Your task to perform on an android device: add a contact Image 0: 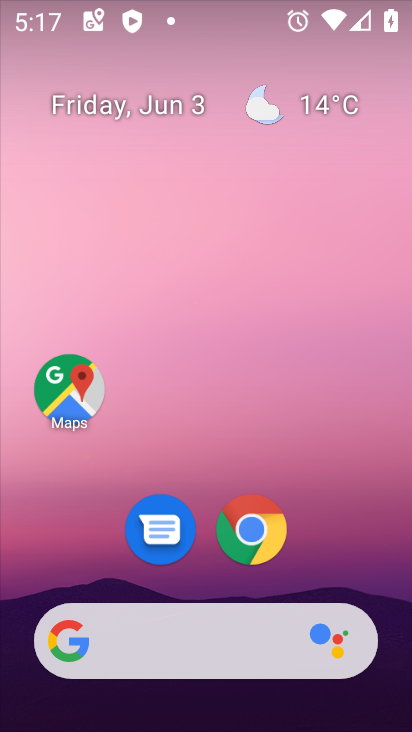
Step 0: press home button
Your task to perform on an android device: add a contact Image 1: 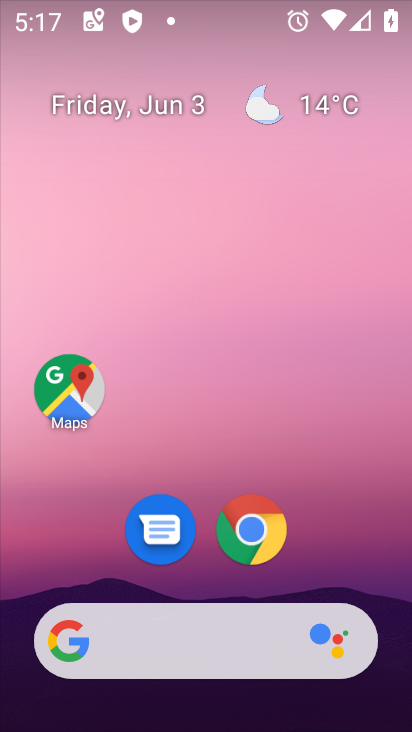
Step 1: drag from (204, 579) to (233, 64)
Your task to perform on an android device: add a contact Image 2: 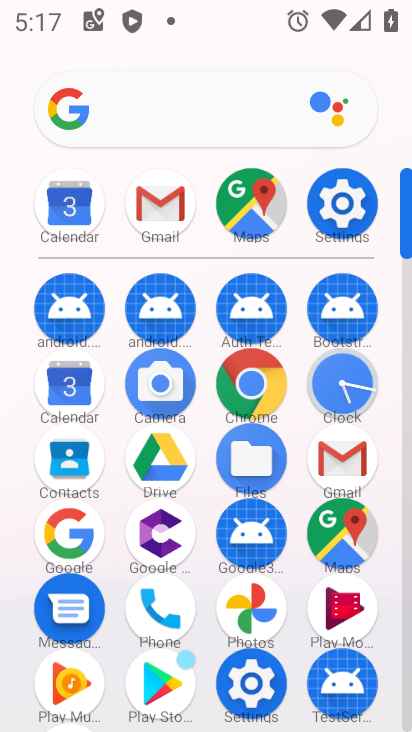
Step 2: click (63, 452)
Your task to perform on an android device: add a contact Image 3: 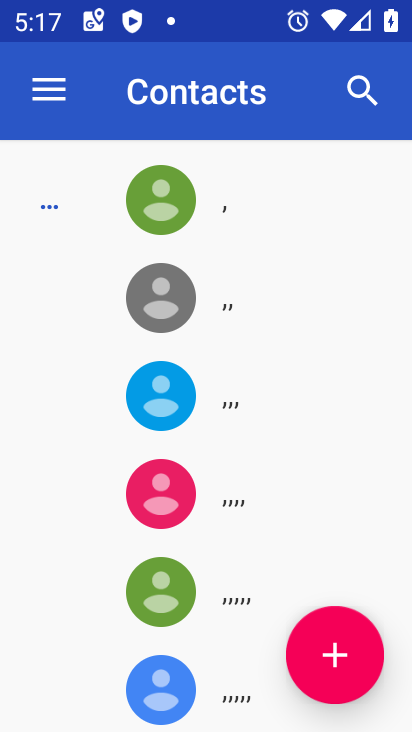
Step 3: click (341, 648)
Your task to perform on an android device: add a contact Image 4: 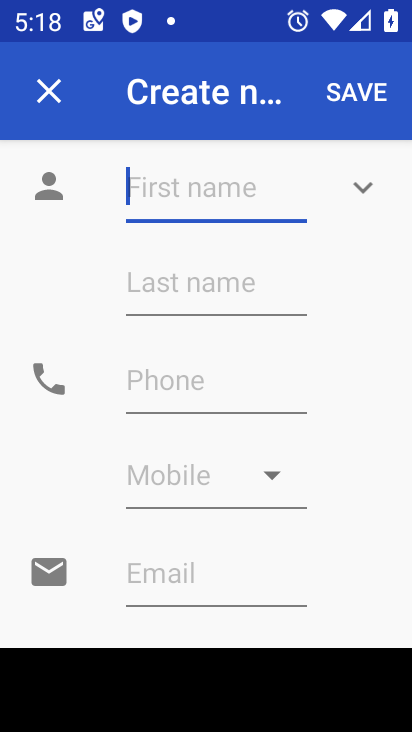
Step 4: type "gtxtcfgh"
Your task to perform on an android device: add a contact Image 5: 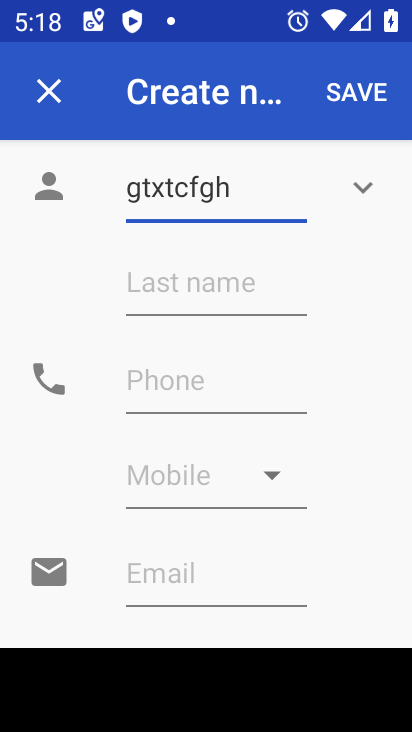
Step 5: click (363, 87)
Your task to perform on an android device: add a contact Image 6: 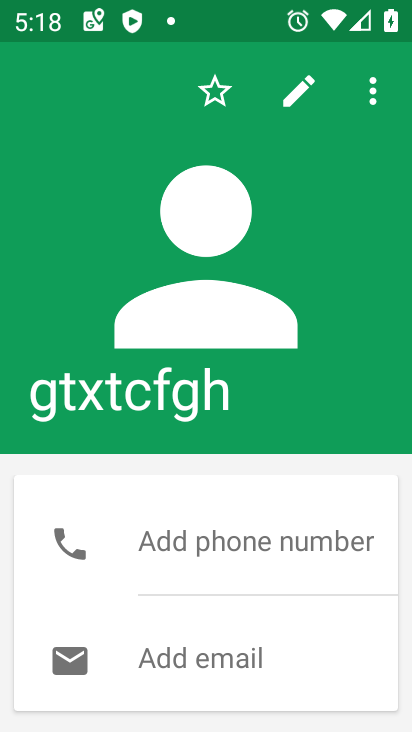
Step 6: task complete